Your task to perform on an android device: create a new album in the google photos Image 0: 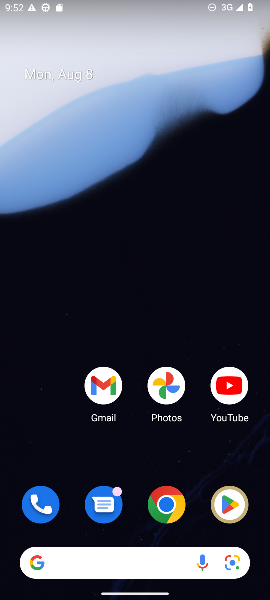
Step 0: drag from (128, 441) to (164, 111)
Your task to perform on an android device: create a new album in the google photos Image 1: 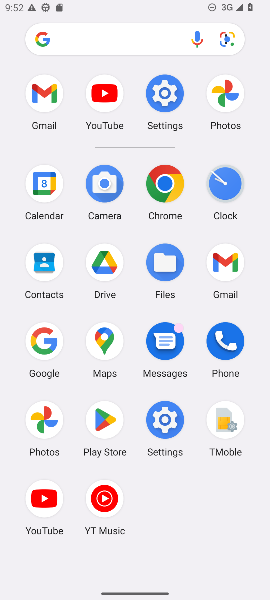
Step 1: click (48, 429)
Your task to perform on an android device: create a new album in the google photos Image 2: 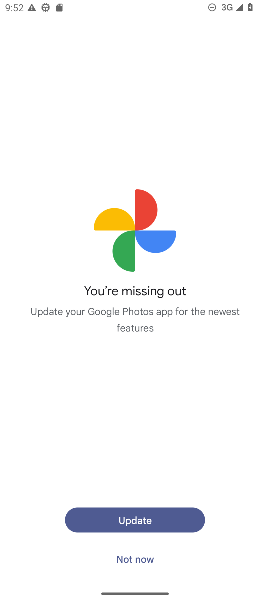
Step 2: click (123, 550)
Your task to perform on an android device: create a new album in the google photos Image 3: 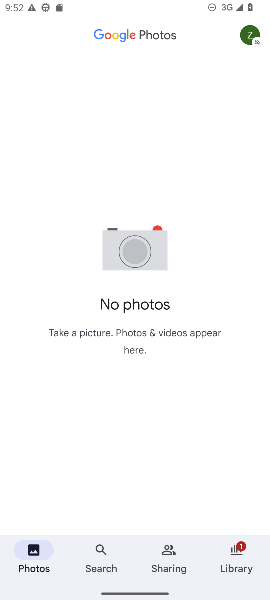
Step 3: click (231, 549)
Your task to perform on an android device: create a new album in the google photos Image 4: 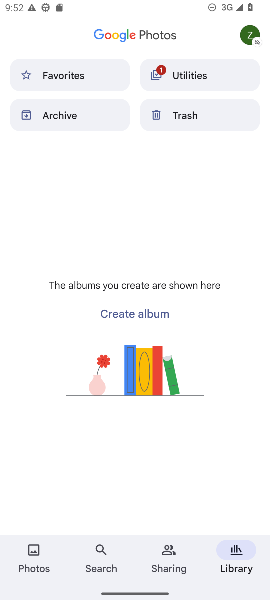
Step 4: click (130, 312)
Your task to perform on an android device: create a new album in the google photos Image 5: 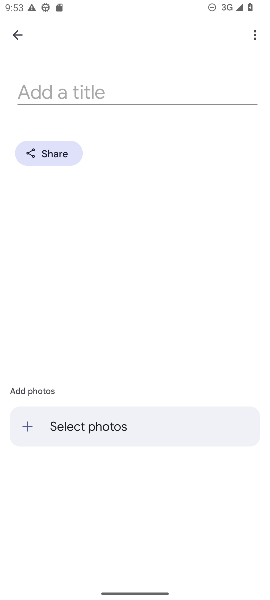
Step 5: click (25, 423)
Your task to perform on an android device: create a new album in the google photos Image 6: 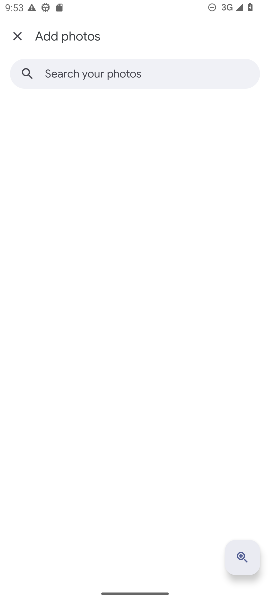
Step 6: task complete